Your task to perform on an android device: toggle notification dots Image 0: 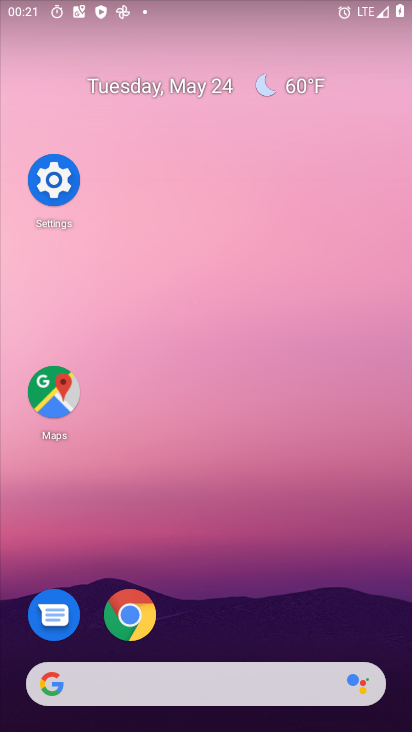
Step 0: drag from (227, 611) to (309, 108)
Your task to perform on an android device: toggle notification dots Image 1: 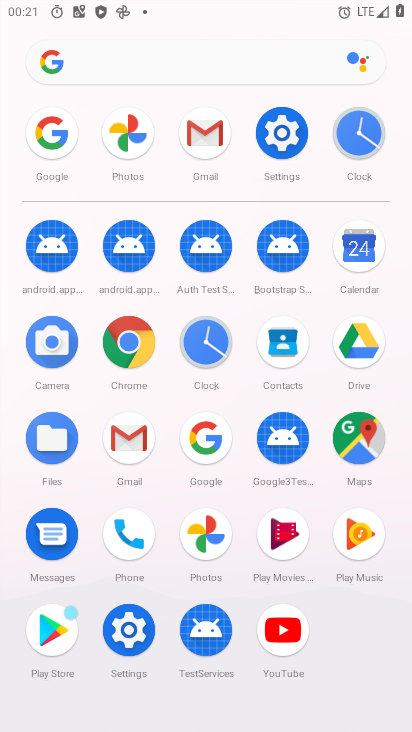
Step 1: click (283, 131)
Your task to perform on an android device: toggle notification dots Image 2: 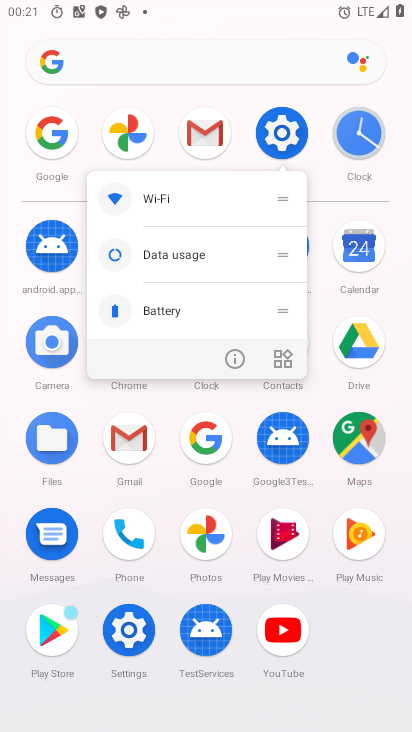
Step 2: click (280, 137)
Your task to perform on an android device: toggle notification dots Image 3: 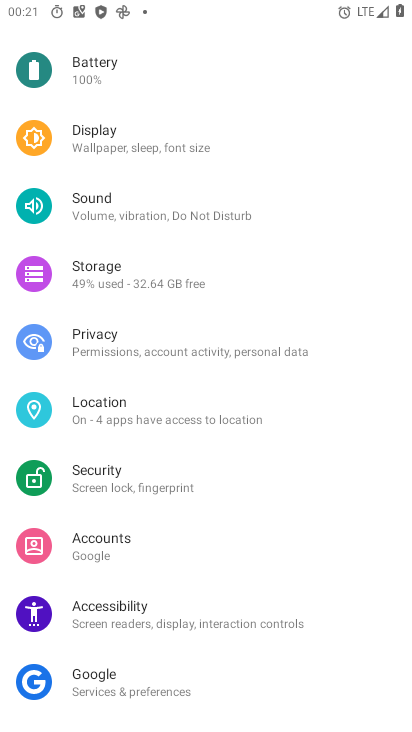
Step 3: drag from (184, 164) to (189, 446)
Your task to perform on an android device: toggle notification dots Image 4: 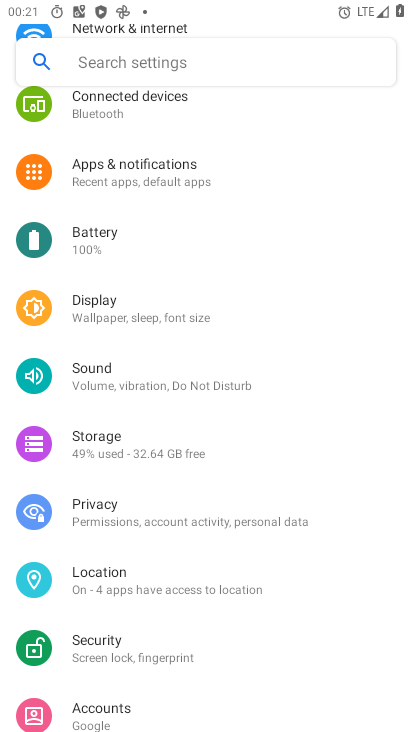
Step 4: click (111, 170)
Your task to perform on an android device: toggle notification dots Image 5: 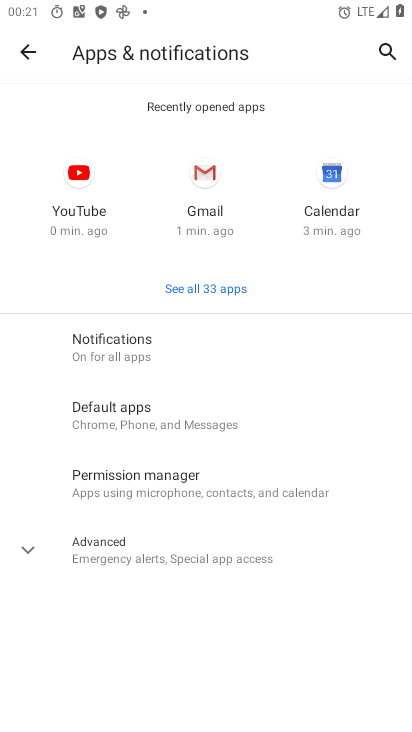
Step 5: click (137, 345)
Your task to perform on an android device: toggle notification dots Image 6: 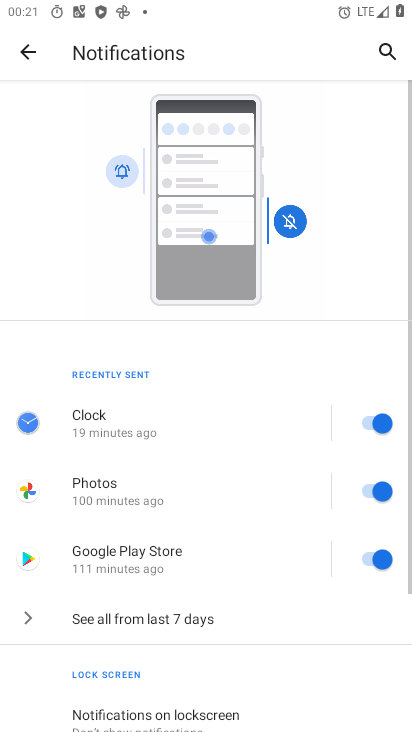
Step 6: drag from (247, 615) to (229, 214)
Your task to perform on an android device: toggle notification dots Image 7: 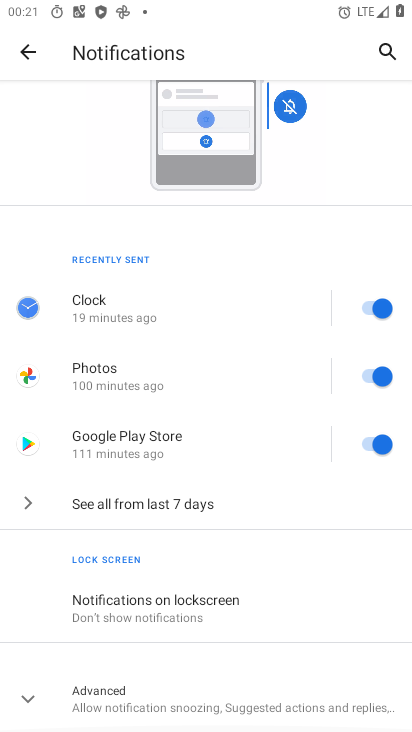
Step 7: click (117, 703)
Your task to perform on an android device: toggle notification dots Image 8: 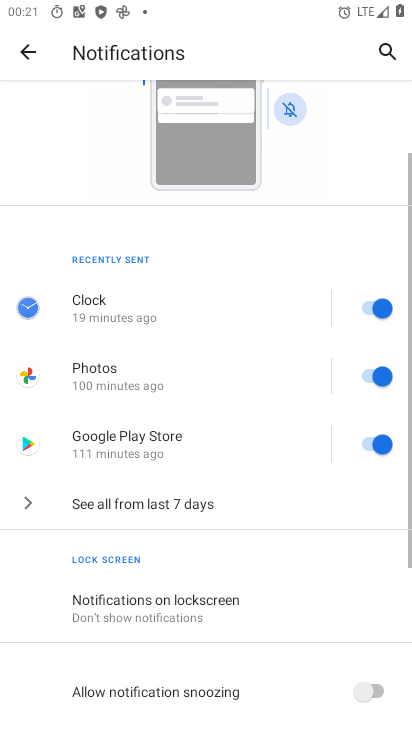
Step 8: drag from (222, 628) to (240, 168)
Your task to perform on an android device: toggle notification dots Image 9: 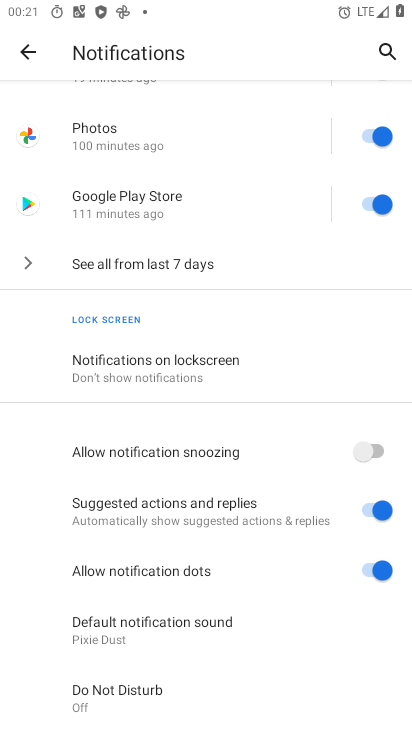
Step 9: click (373, 573)
Your task to perform on an android device: toggle notification dots Image 10: 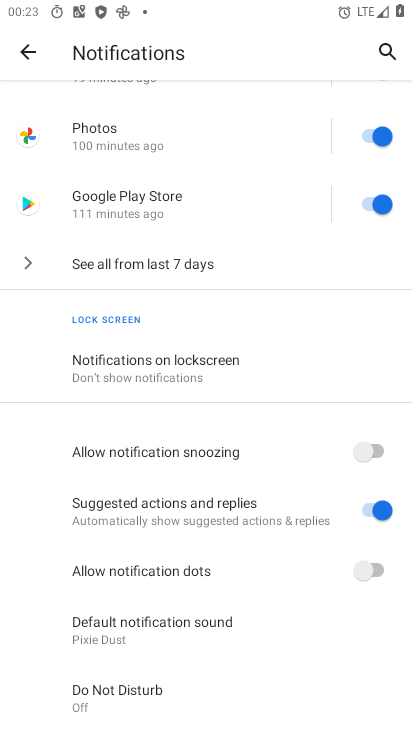
Step 10: task complete